Your task to perform on an android device: make emails show in primary in the gmail app Image 0: 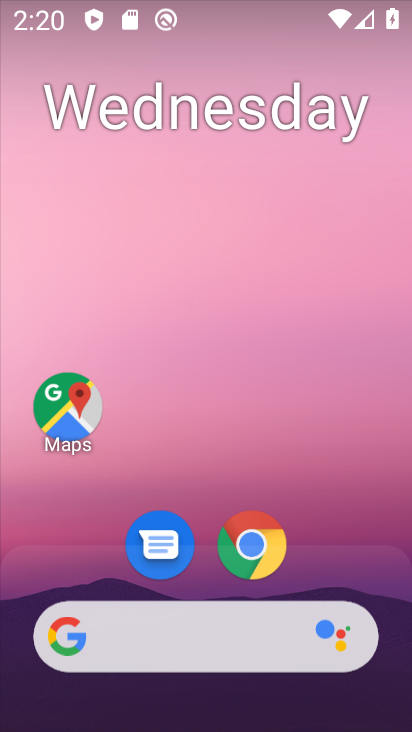
Step 0: drag from (204, 497) to (263, 15)
Your task to perform on an android device: make emails show in primary in the gmail app Image 1: 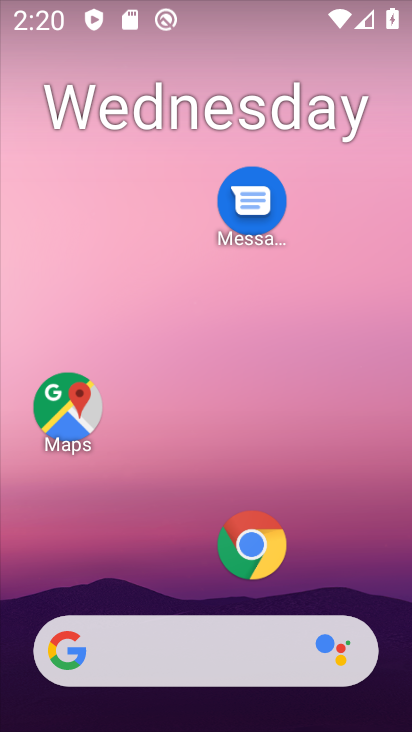
Step 1: drag from (160, 562) to (393, 461)
Your task to perform on an android device: make emails show in primary in the gmail app Image 2: 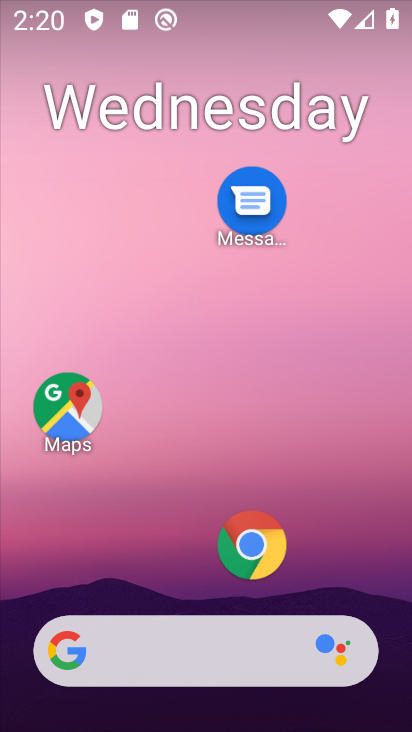
Step 2: drag from (155, 563) to (323, 35)
Your task to perform on an android device: make emails show in primary in the gmail app Image 3: 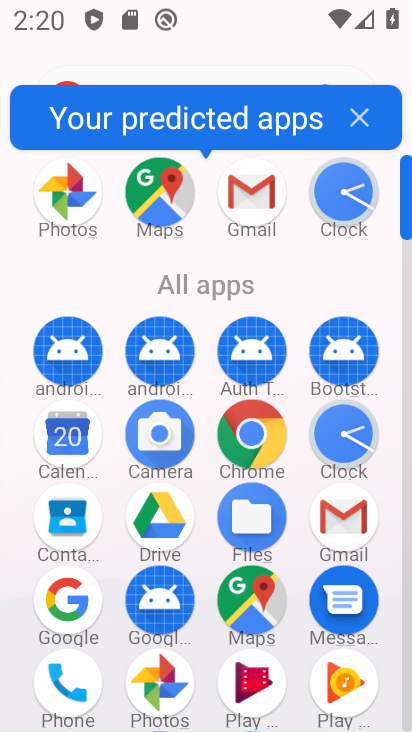
Step 3: click (349, 510)
Your task to perform on an android device: make emails show in primary in the gmail app Image 4: 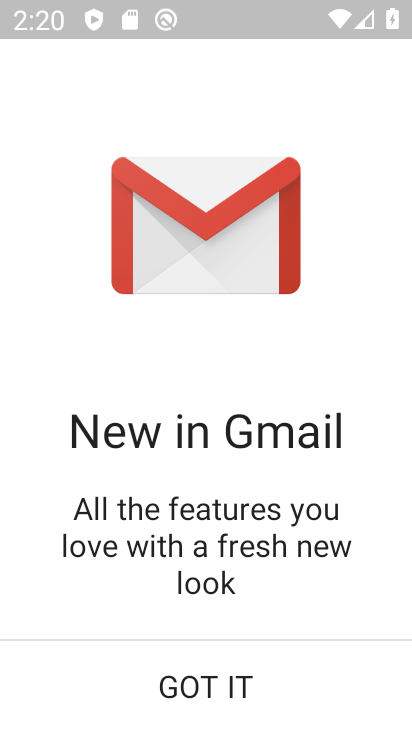
Step 4: click (307, 704)
Your task to perform on an android device: make emails show in primary in the gmail app Image 5: 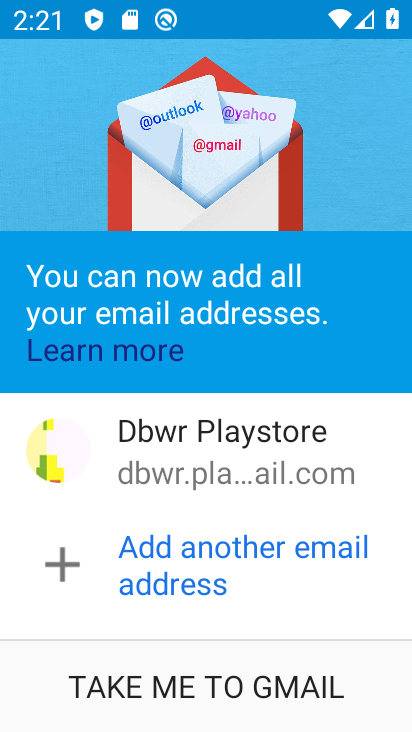
Step 5: click (267, 691)
Your task to perform on an android device: make emails show in primary in the gmail app Image 6: 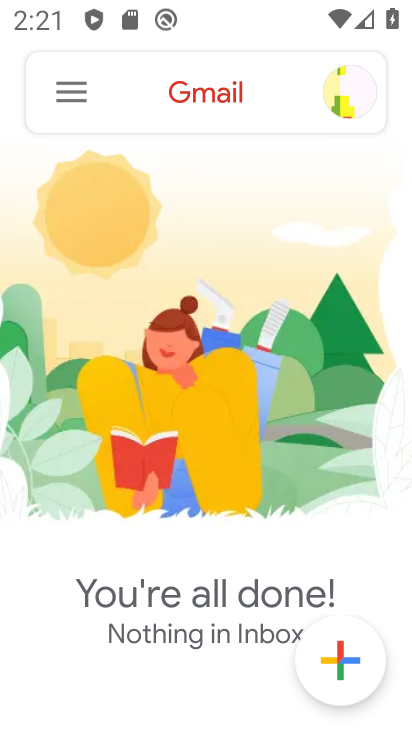
Step 6: click (64, 81)
Your task to perform on an android device: make emails show in primary in the gmail app Image 7: 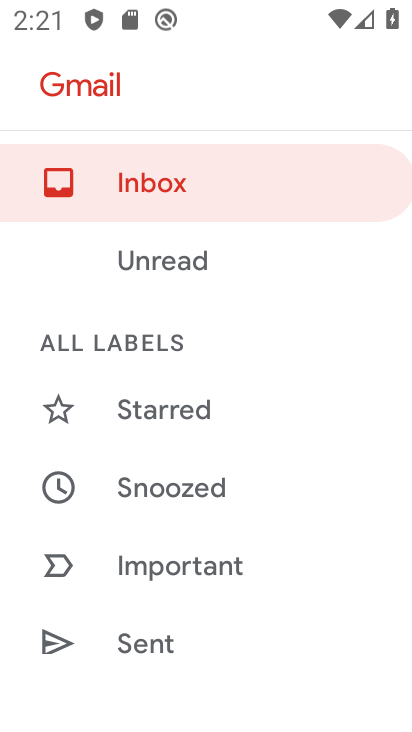
Step 7: drag from (174, 481) to (227, 1)
Your task to perform on an android device: make emails show in primary in the gmail app Image 8: 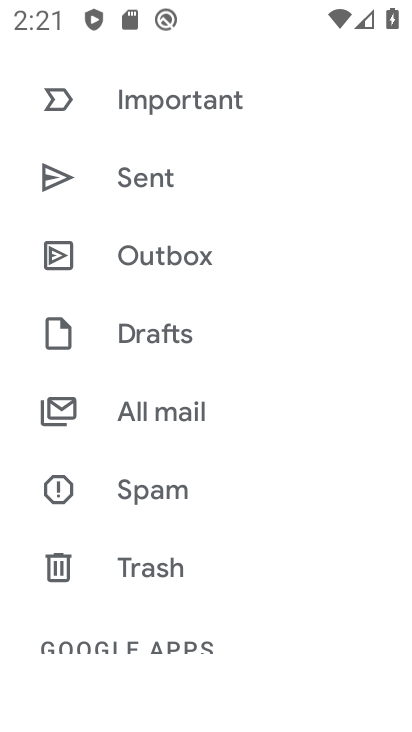
Step 8: drag from (163, 408) to (241, 36)
Your task to perform on an android device: make emails show in primary in the gmail app Image 9: 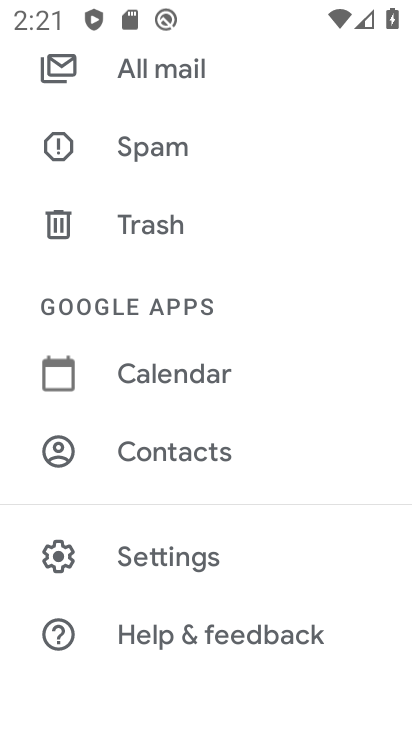
Step 9: click (159, 550)
Your task to perform on an android device: make emails show in primary in the gmail app Image 10: 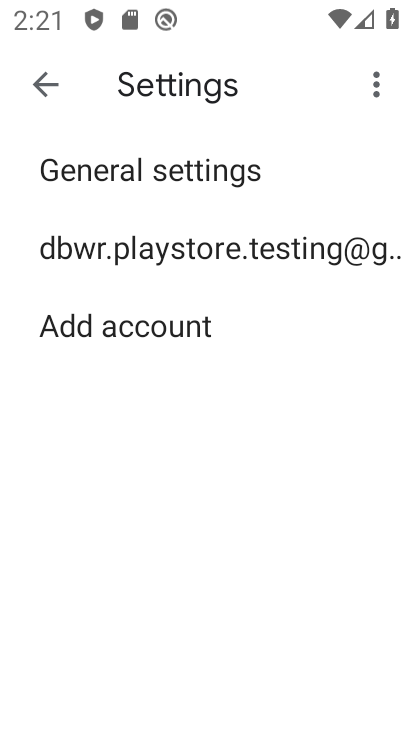
Step 10: click (142, 258)
Your task to perform on an android device: make emails show in primary in the gmail app Image 11: 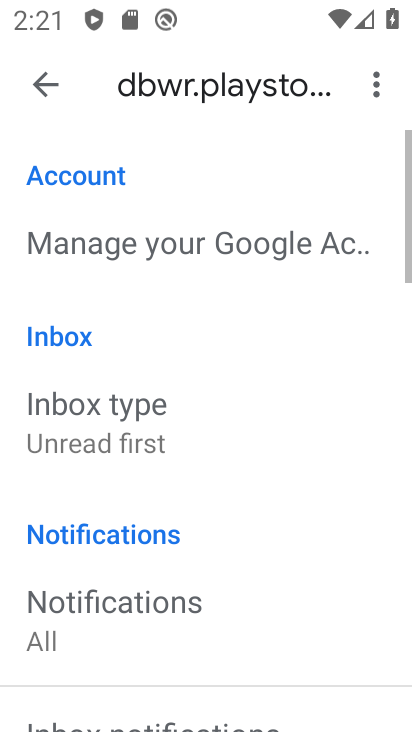
Step 11: click (116, 416)
Your task to perform on an android device: make emails show in primary in the gmail app Image 12: 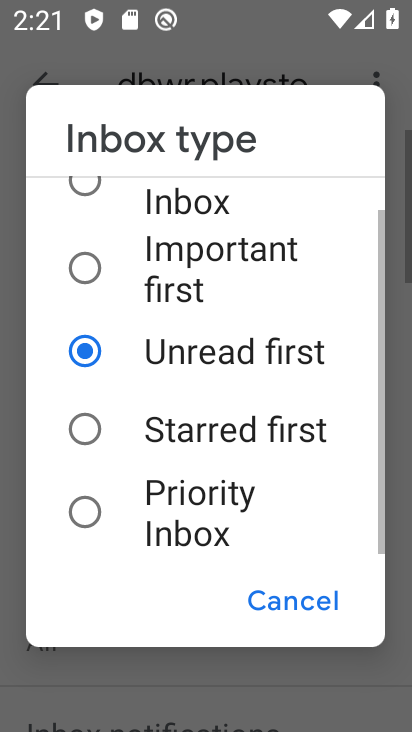
Step 12: drag from (81, 274) to (98, 475)
Your task to perform on an android device: make emails show in primary in the gmail app Image 13: 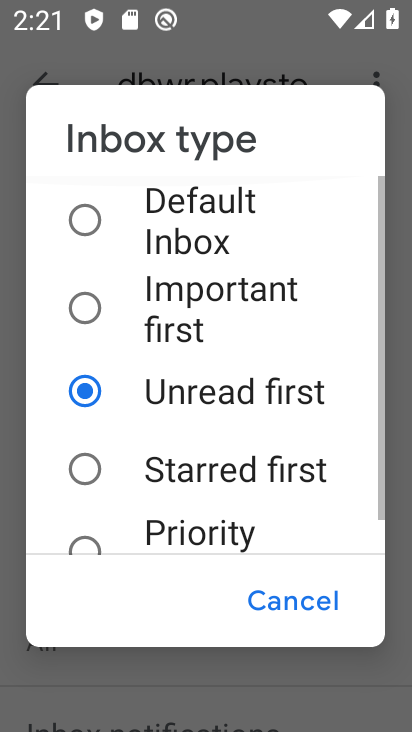
Step 13: click (94, 239)
Your task to perform on an android device: make emails show in primary in the gmail app Image 14: 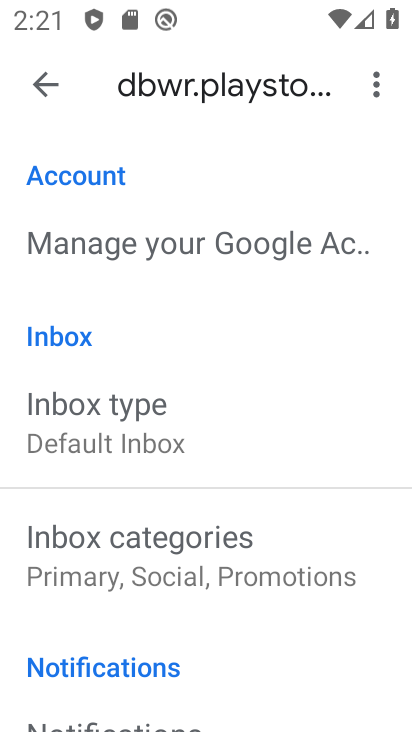
Step 14: click (119, 556)
Your task to perform on an android device: make emails show in primary in the gmail app Image 15: 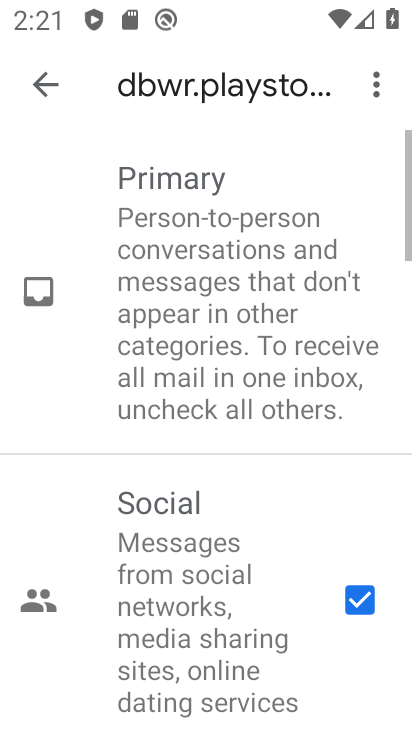
Step 15: click (313, 590)
Your task to perform on an android device: make emails show in primary in the gmail app Image 16: 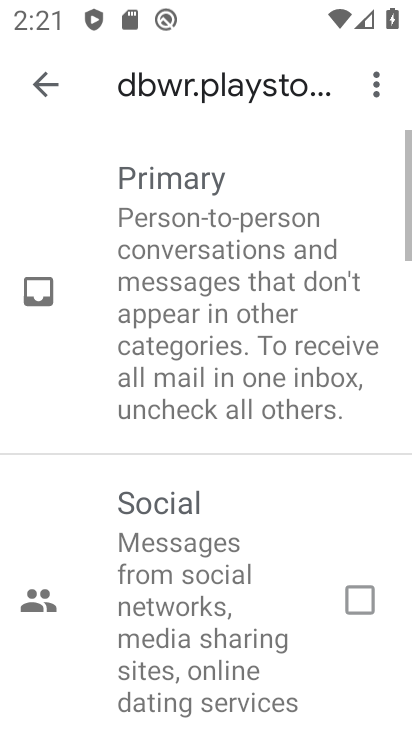
Step 16: drag from (195, 660) to (284, 157)
Your task to perform on an android device: make emails show in primary in the gmail app Image 17: 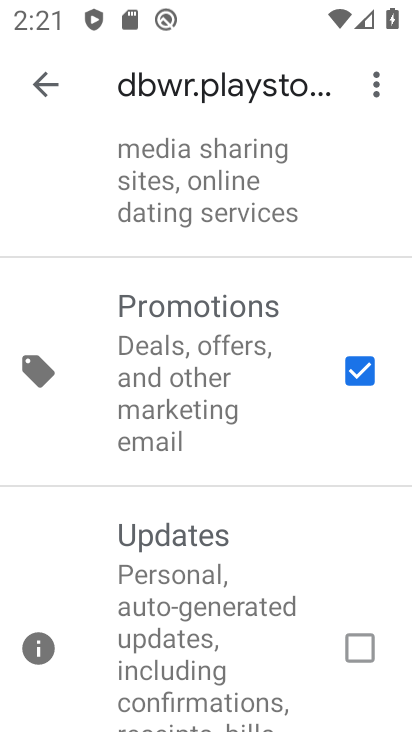
Step 17: click (356, 368)
Your task to perform on an android device: make emails show in primary in the gmail app Image 18: 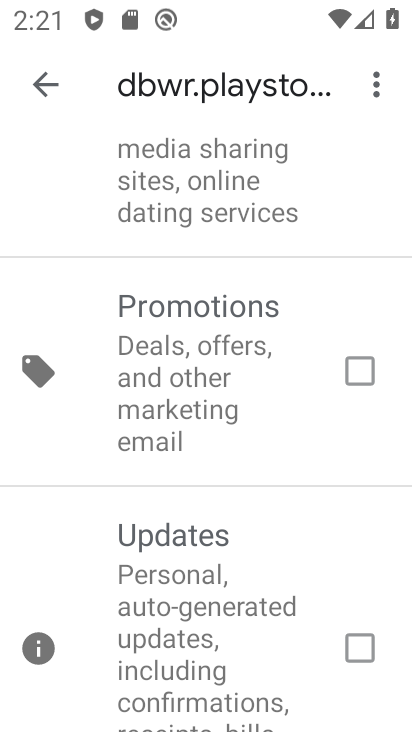
Step 18: click (36, 92)
Your task to perform on an android device: make emails show in primary in the gmail app Image 19: 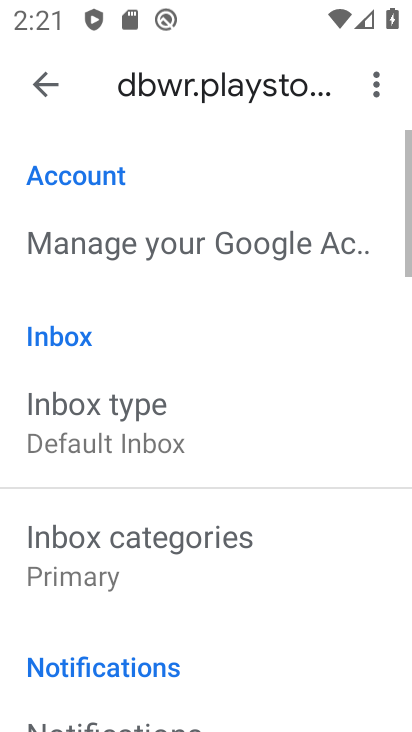
Step 19: task complete